Your task to perform on an android device: Show me popular videos on Youtube Image 0: 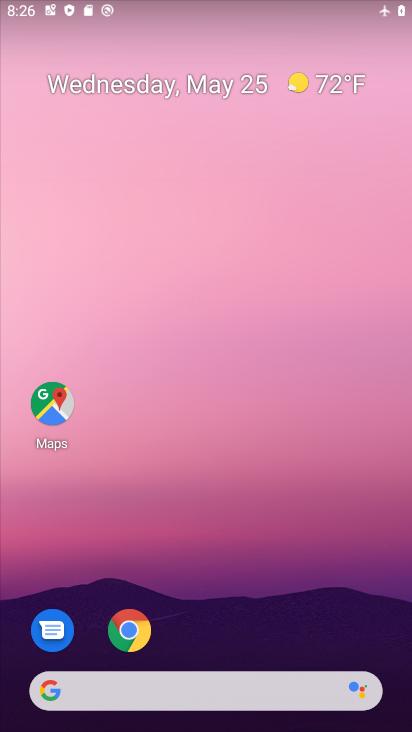
Step 0: drag from (226, 651) to (225, 265)
Your task to perform on an android device: Show me popular videos on Youtube Image 1: 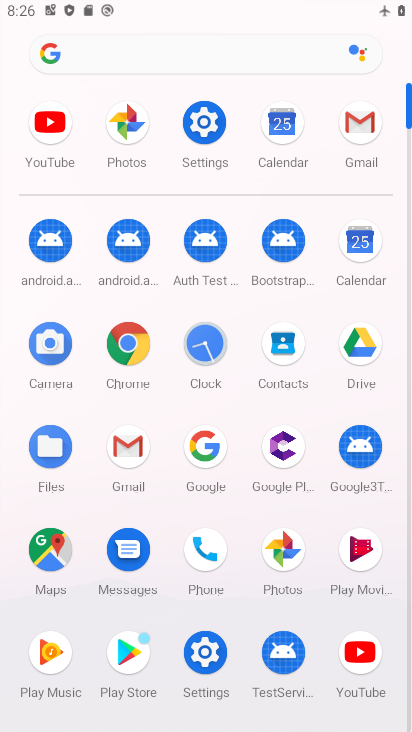
Step 1: click (49, 132)
Your task to perform on an android device: Show me popular videos on Youtube Image 2: 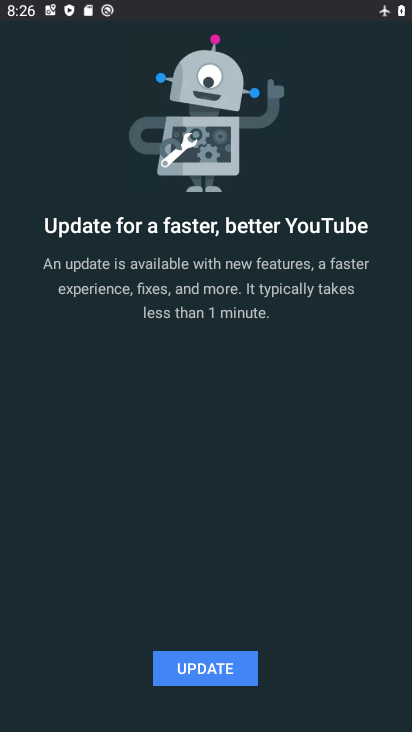
Step 2: drag from (227, 676) to (177, 676)
Your task to perform on an android device: Show me popular videos on Youtube Image 3: 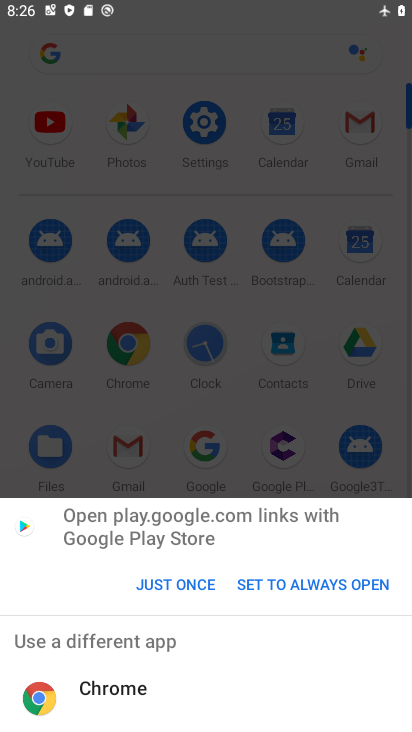
Step 3: click (164, 589)
Your task to perform on an android device: Show me popular videos on Youtube Image 4: 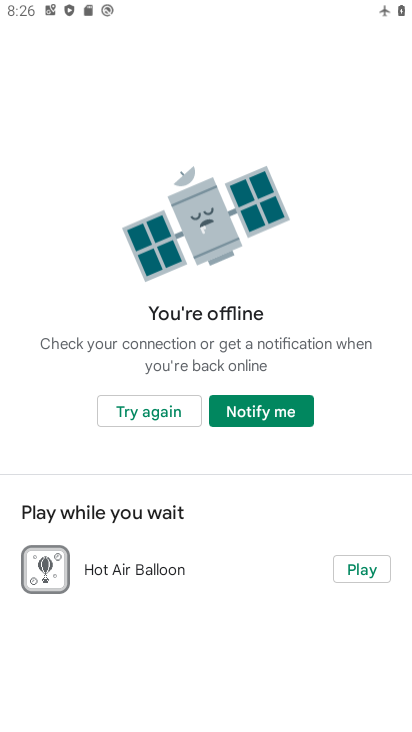
Step 4: task complete